Your task to perform on an android device: Open Youtube and go to the subscriptions tab Image 0: 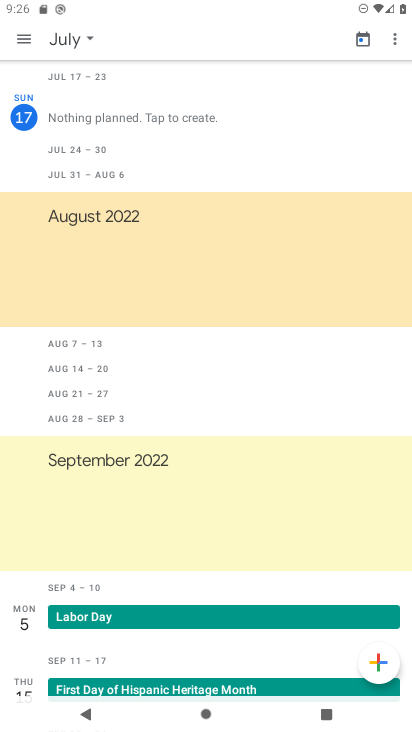
Step 0: press home button
Your task to perform on an android device: Open Youtube and go to the subscriptions tab Image 1: 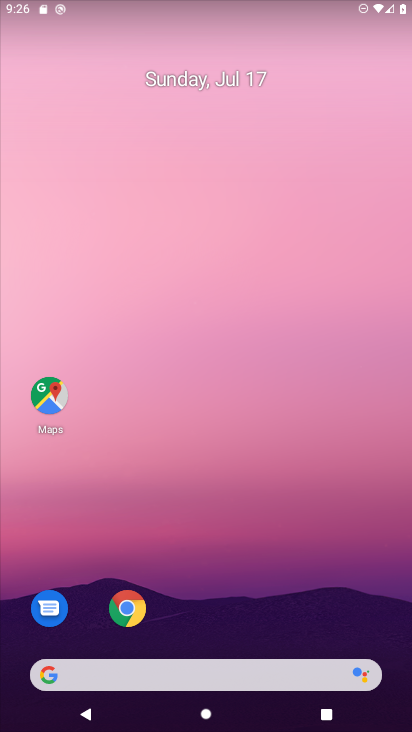
Step 1: drag from (223, 674) to (272, 100)
Your task to perform on an android device: Open Youtube and go to the subscriptions tab Image 2: 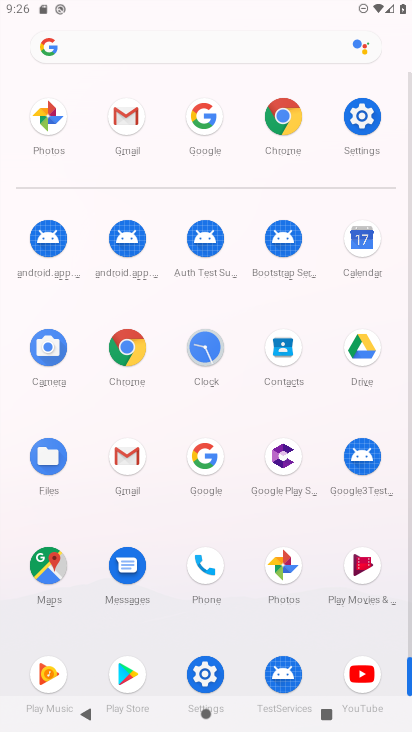
Step 2: click (357, 677)
Your task to perform on an android device: Open Youtube and go to the subscriptions tab Image 3: 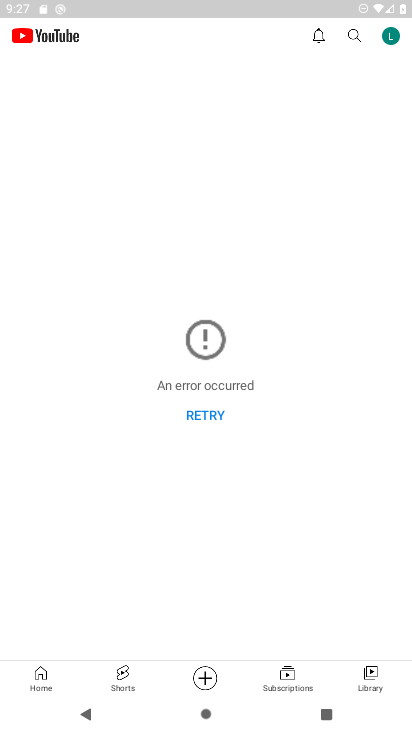
Step 3: click (296, 672)
Your task to perform on an android device: Open Youtube and go to the subscriptions tab Image 4: 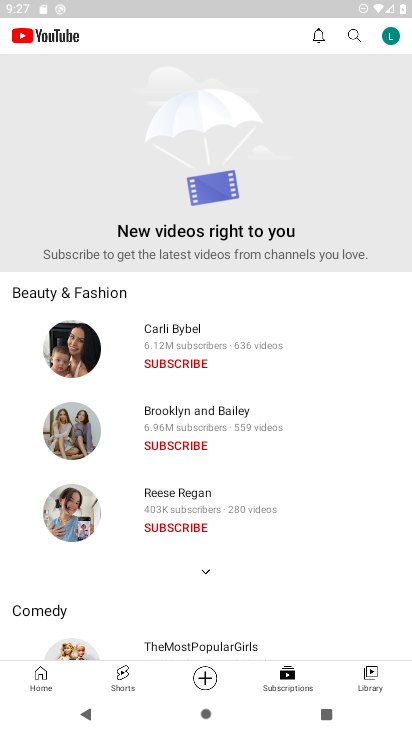
Step 4: task complete